Your task to perform on an android device: find snoozed emails in the gmail app Image 0: 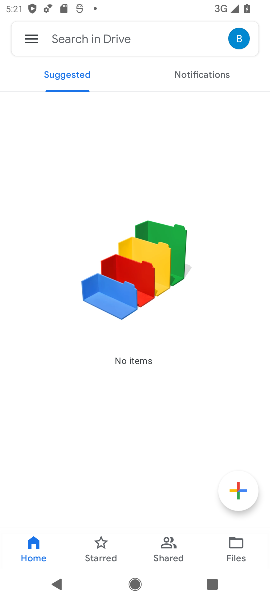
Step 0: press home button
Your task to perform on an android device: find snoozed emails in the gmail app Image 1: 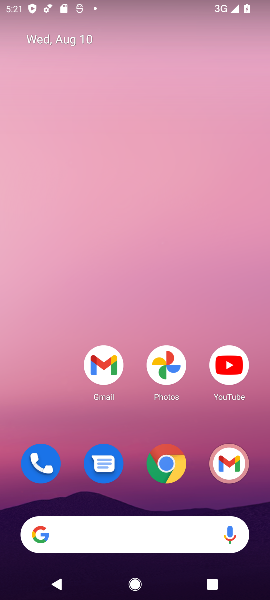
Step 1: click (103, 358)
Your task to perform on an android device: find snoozed emails in the gmail app Image 2: 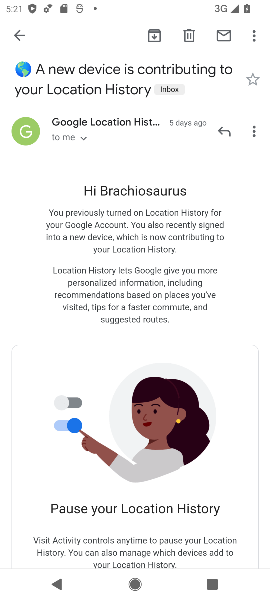
Step 2: click (15, 32)
Your task to perform on an android device: find snoozed emails in the gmail app Image 3: 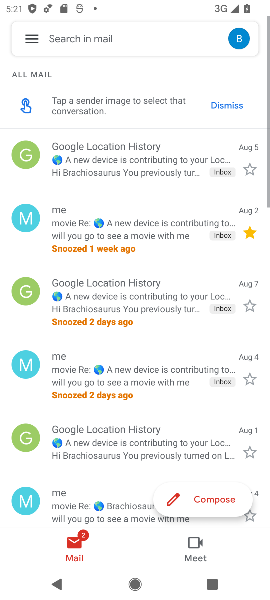
Step 3: click (25, 31)
Your task to perform on an android device: find snoozed emails in the gmail app Image 4: 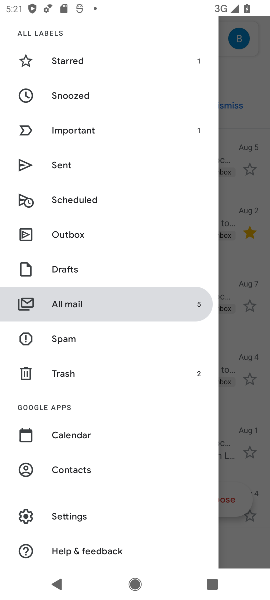
Step 4: click (76, 90)
Your task to perform on an android device: find snoozed emails in the gmail app Image 5: 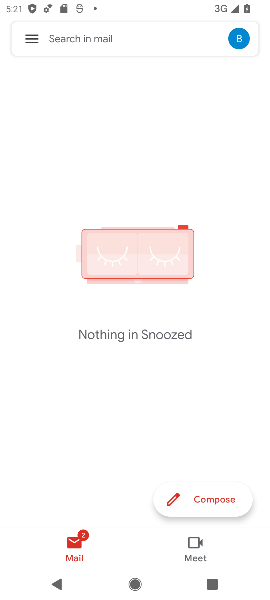
Step 5: task complete